Your task to perform on an android device: Open the stopwatch Image 0: 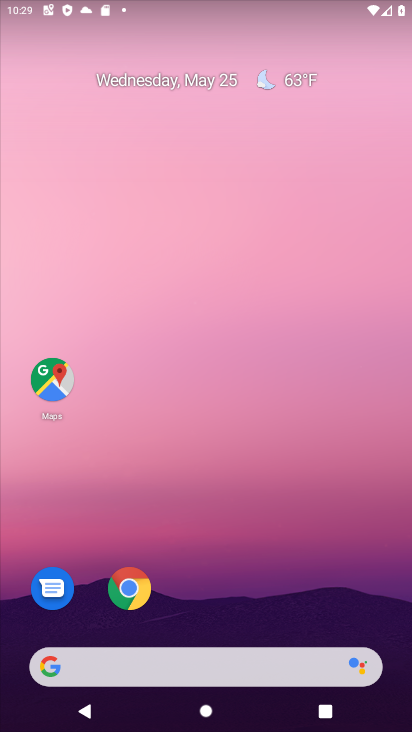
Step 0: drag from (246, 599) to (328, 230)
Your task to perform on an android device: Open the stopwatch Image 1: 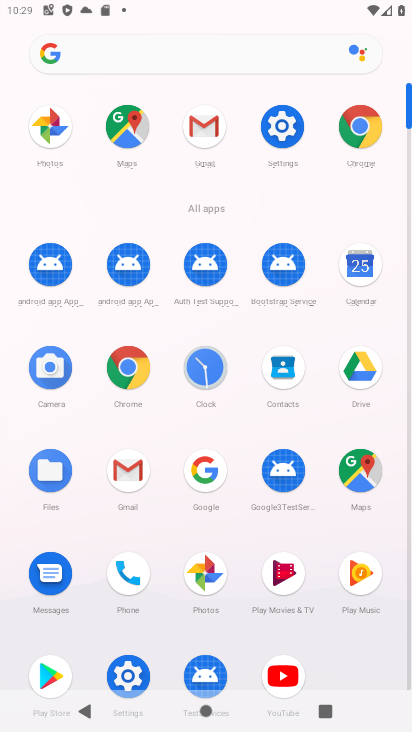
Step 1: click (204, 381)
Your task to perform on an android device: Open the stopwatch Image 2: 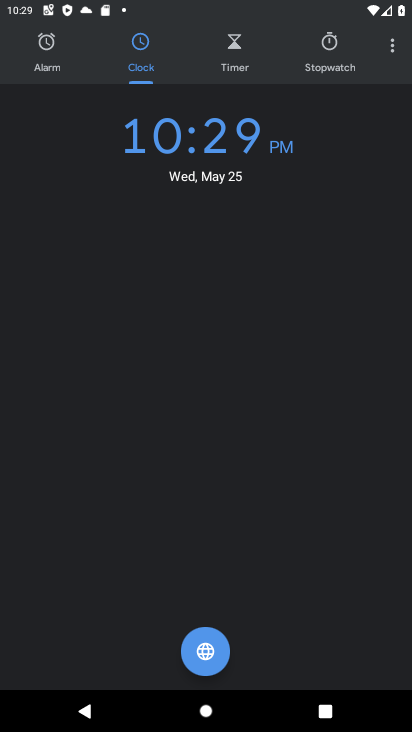
Step 2: click (329, 45)
Your task to perform on an android device: Open the stopwatch Image 3: 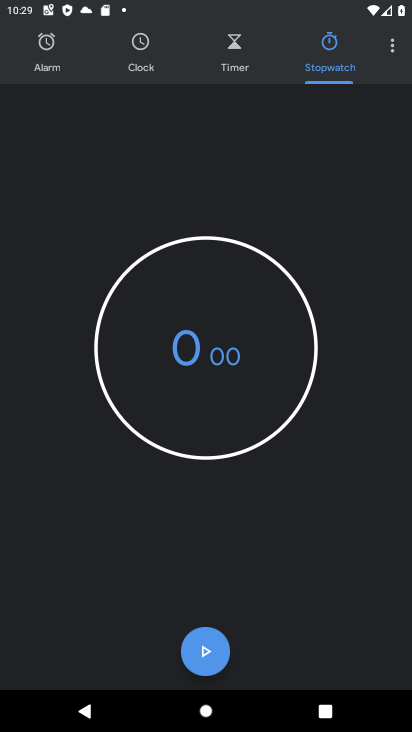
Step 3: task complete